Your task to perform on an android device: empty trash in the gmail app Image 0: 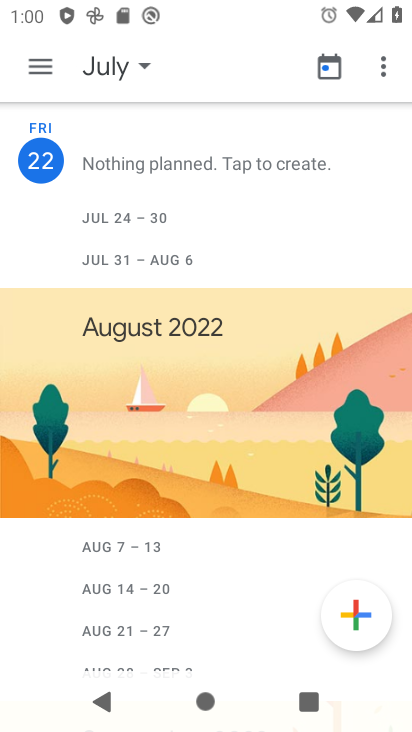
Step 0: press home button
Your task to perform on an android device: empty trash in the gmail app Image 1: 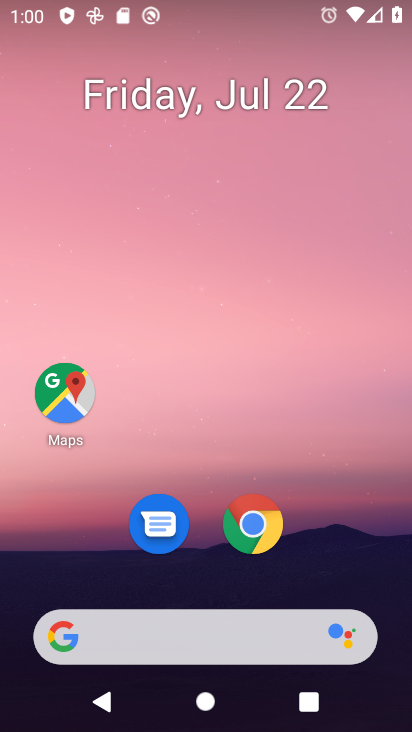
Step 1: drag from (168, 650) to (297, 124)
Your task to perform on an android device: empty trash in the gmail app Image 2: 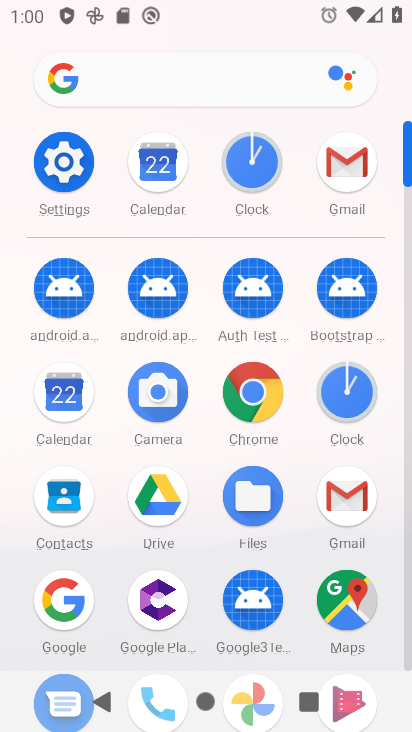
Step 2: click (353, 178)
Your task to perform on an android device: empty trash in the gmail app Image 3: 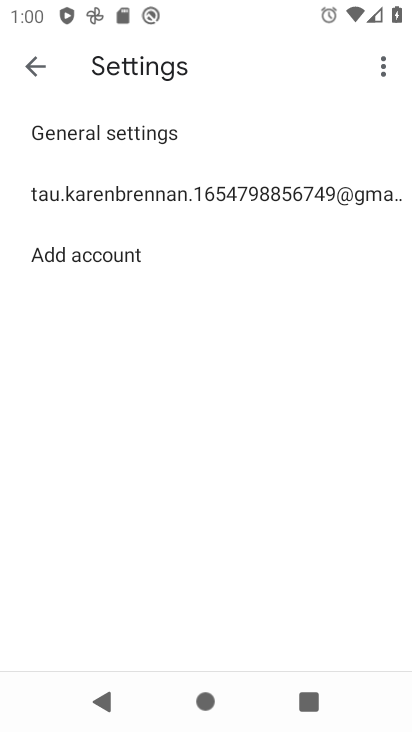
Step 3: click (38, 67)
Your task to perform on an android device: empty trash in the gmail app Image 4: 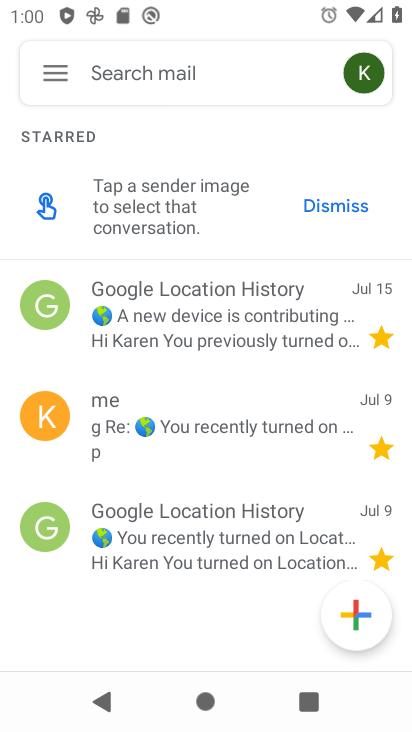
Step 4: click (45, 72)
Your task to perform on an android device: empty trash in the gmail app Image 5: 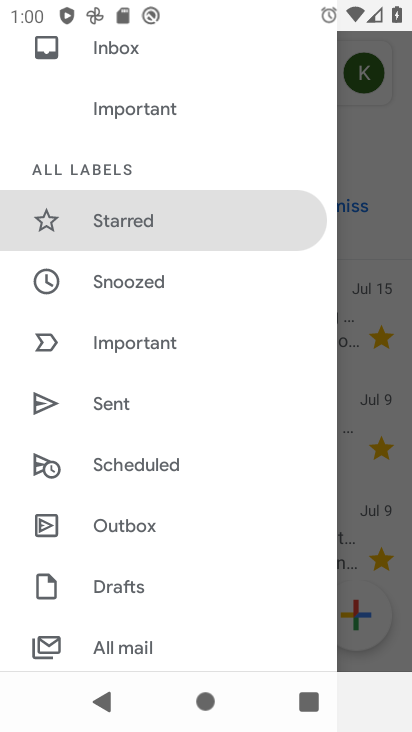
Step 5: drag from (185, 613) to (248, 167)
Your task to perform on an android device: empty trash in the gmail app Image 6: 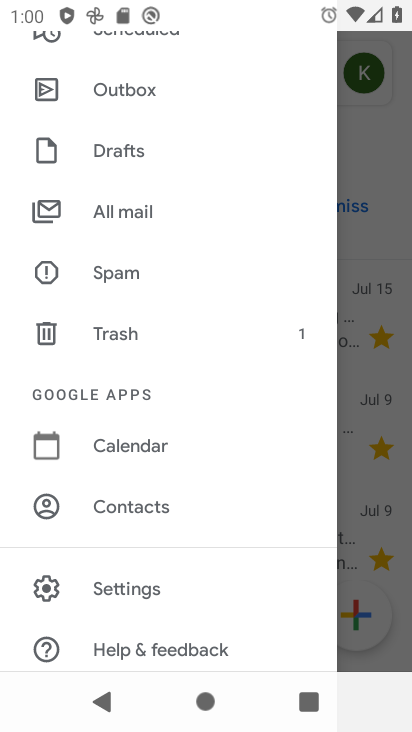
Step 6: click (112, 337)
Your task to perform on an android device: empty trash in the gmail app Image 7: 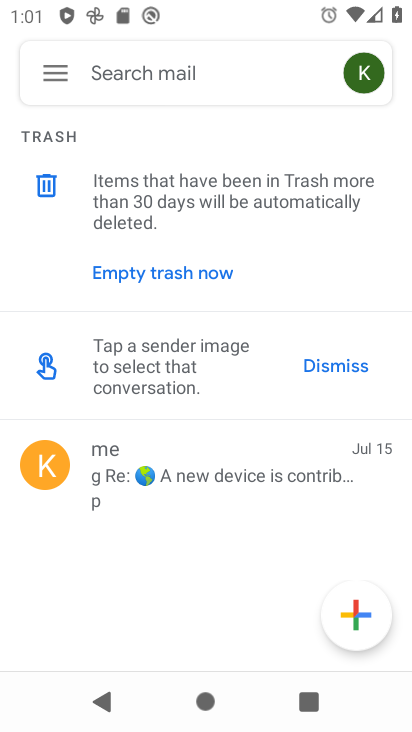
Step 7: click (53, 77)
Your task to perform on an android device: empty trash in the gmail app Image 8: 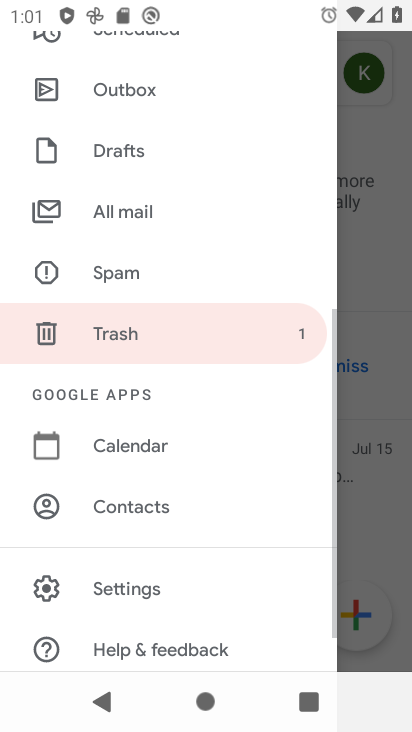
Step 8: click (362, 136)
Your task to perform on an android device: empty trash in the gmail app Image 9: 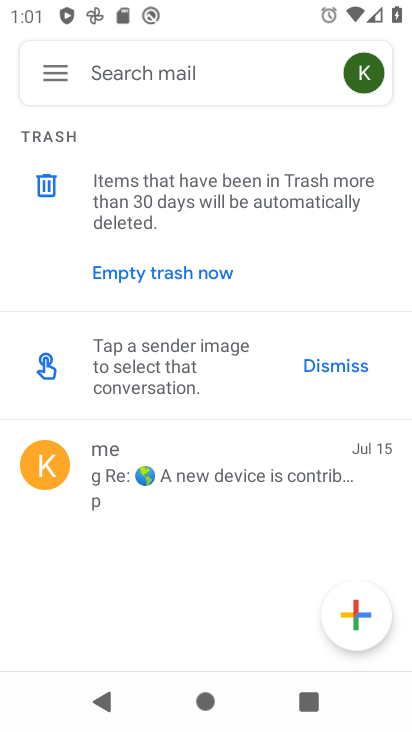
Step 9: click (137, 265)
Your task to perform on an android device: empty trash in the gmail app Image 10: 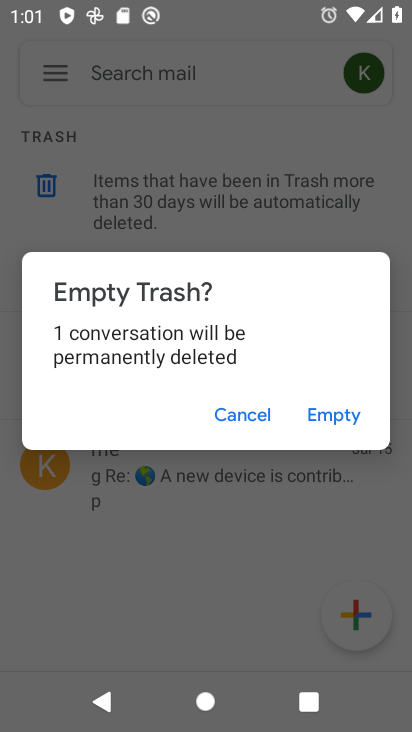
Step 10: click (324, 415)
Your task to perform on an android device: empty trash in the gmail app Image 11: 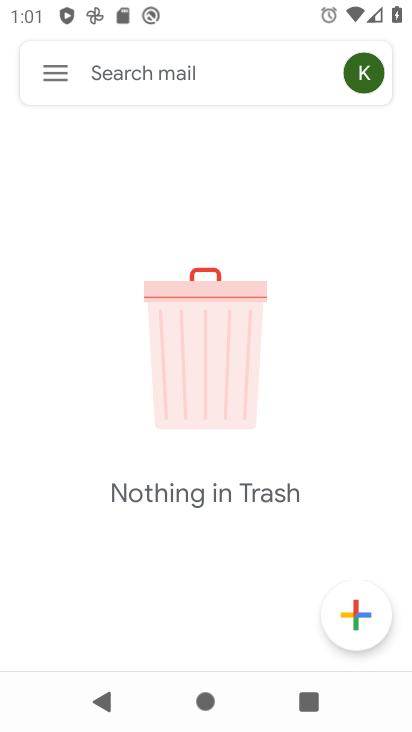
Step 11: task complete